Your task to perform on an android device: set the stopwatch Image 0: 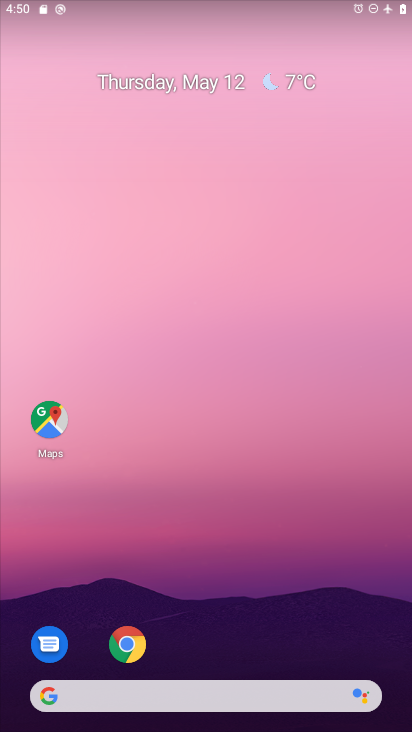
Step 0: drag from (244, 633) to (297, 120)
Your task to perform on an android device: set the stopwatch Image 1: 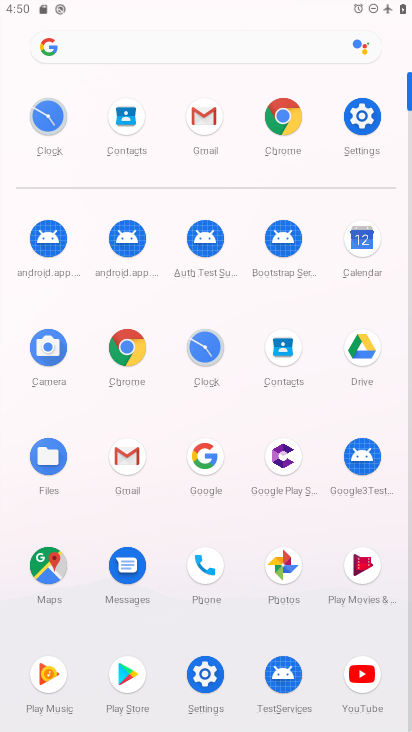
Step 1: click (217, 354)
Your task to perform on an android device: set the stopwatch Image 2: 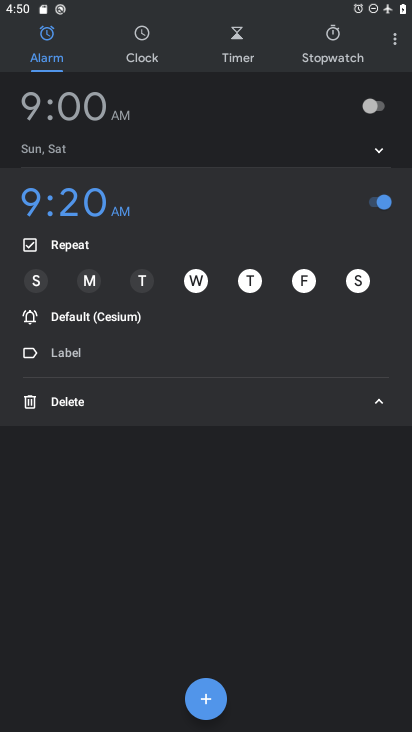
Step 2: click (313, 51)
Your task to perform on an android device: set the stopwatch Image 3: 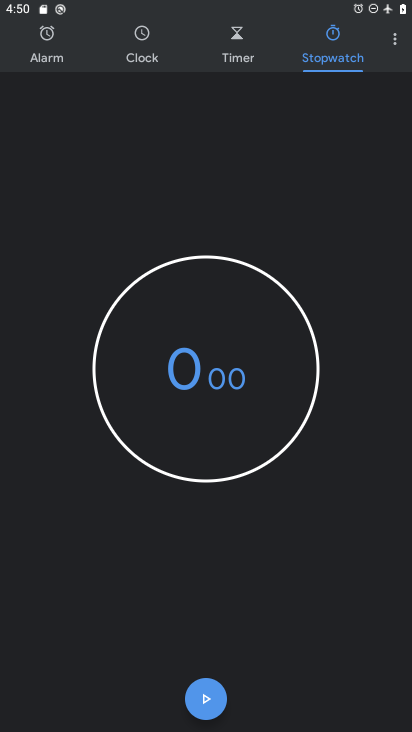
Step 3: click (200, 699)
Your task to perform on an android device: set the stopwatch Image 4: 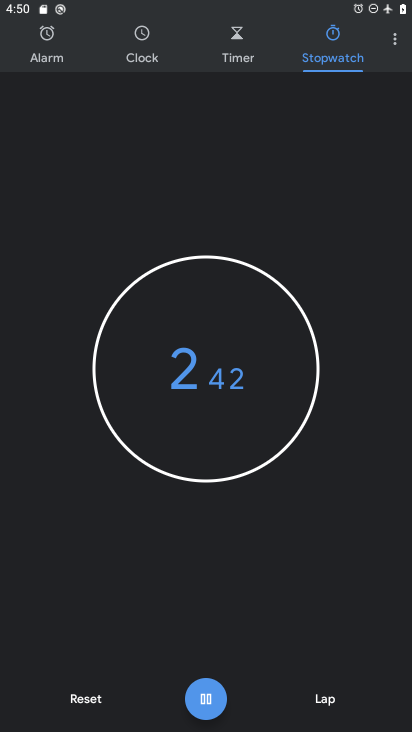
Step 4: task complete